Your task to perform on an android device: turn off javascript in the chrome app Image 0: 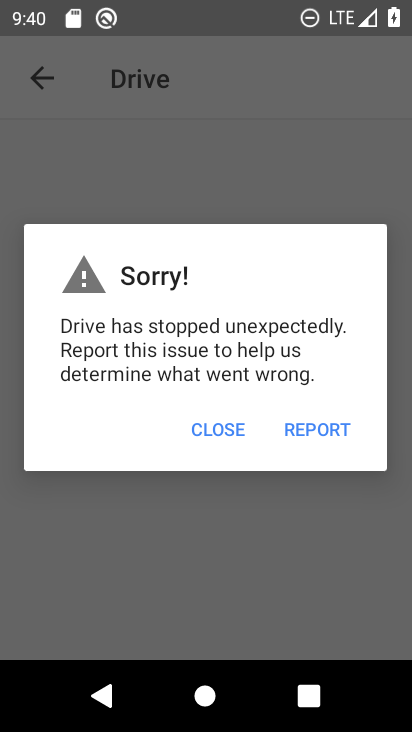
Step 0: click (259, 485)
Your task to perform on an android device: turn off javascript in the chrome app Image 1: 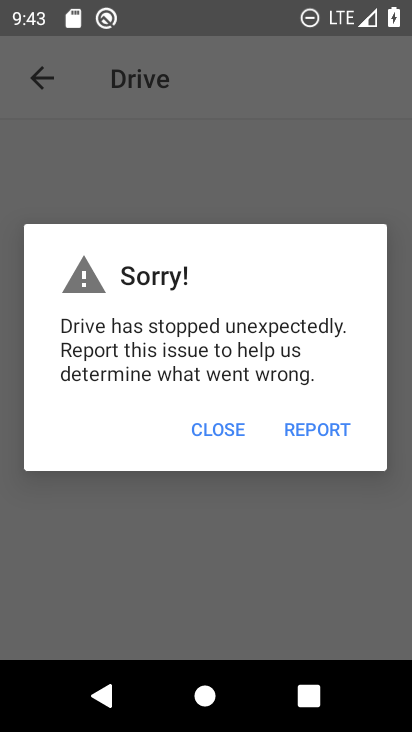
Step 1: press home button
Your task to perform on an android device: turn off javascript in the chrome app Image 2: 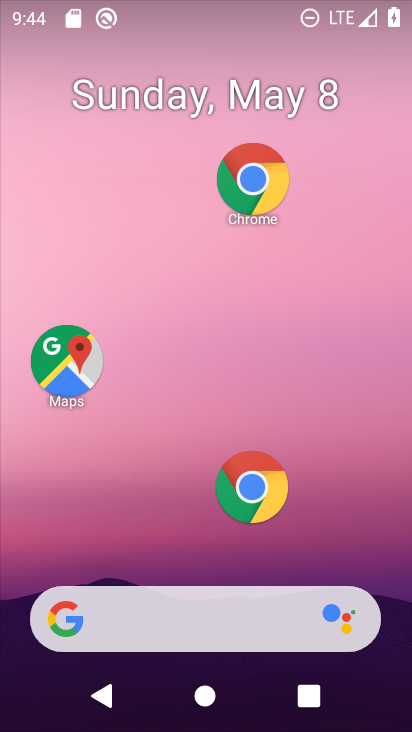
Step 2: drag from (177, 520) to (186, 13)
Your task to perform on an android device: turn off javascript in the chrome app Image 3: 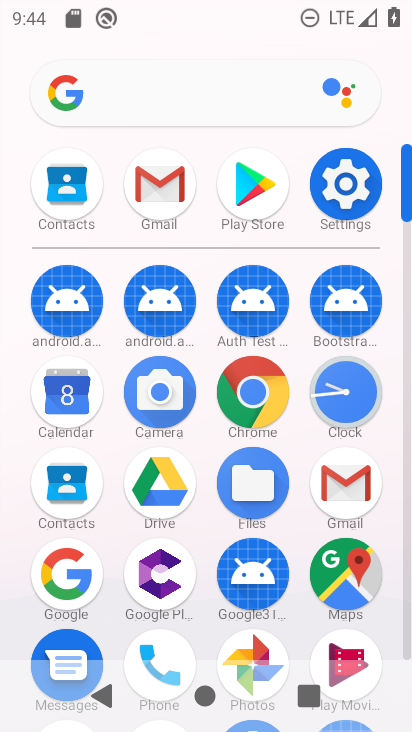
Step 3: click (248, 378)
Your task to perform on an android device: turn off javascript in the chrome app Image 4: 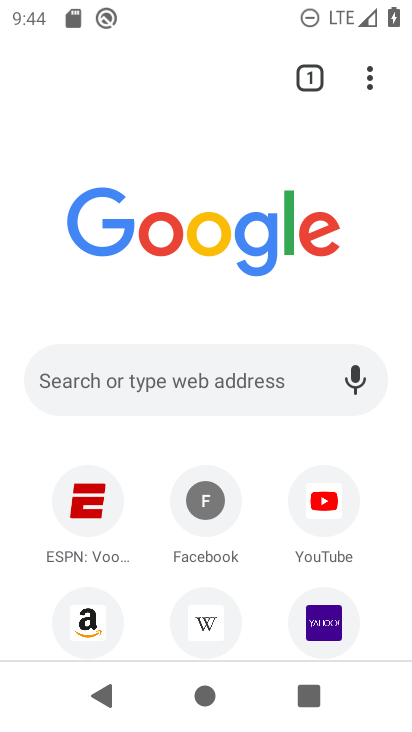
Step 4: click (361, 82)
Your task to perform on an android device: turn off javascript in the chrome app Image 5: 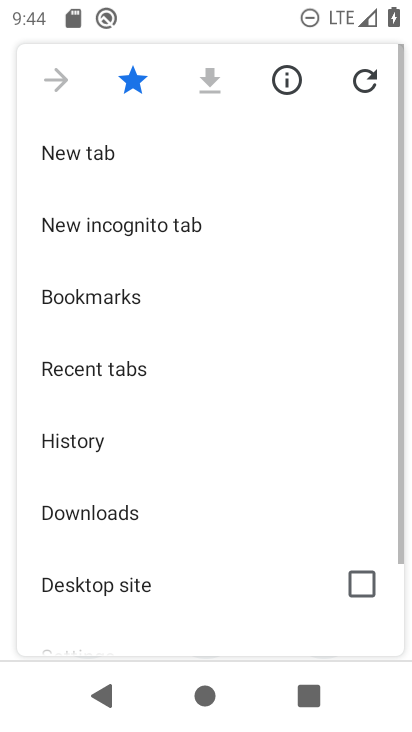
Step 5: drag from (288, 498) to (301, 190)
Your task to perform on an android device: turn off javascript in the chrome app Image 6: 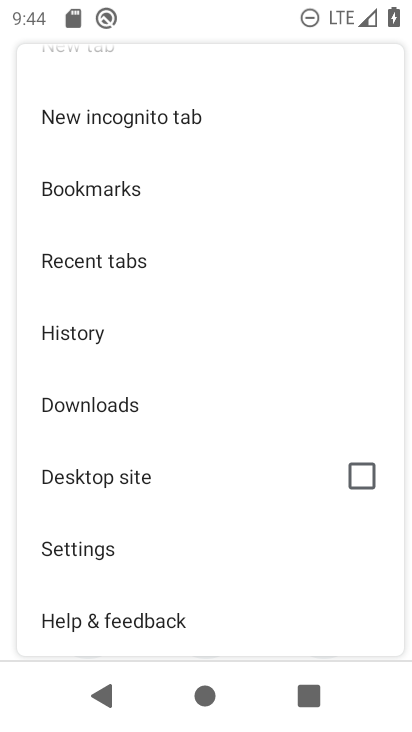
Step 6: click (103, 551)
Your task to perform on an android device: turn off javascript in the chrome app Image 7: 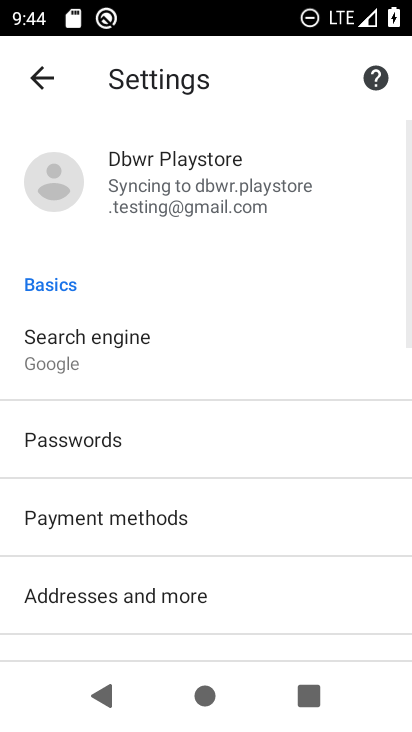
Step 7: drag from (256, 536) to (315, 103)
Your task to perform on an android device: turn off javascript in the chrome app Image 8: 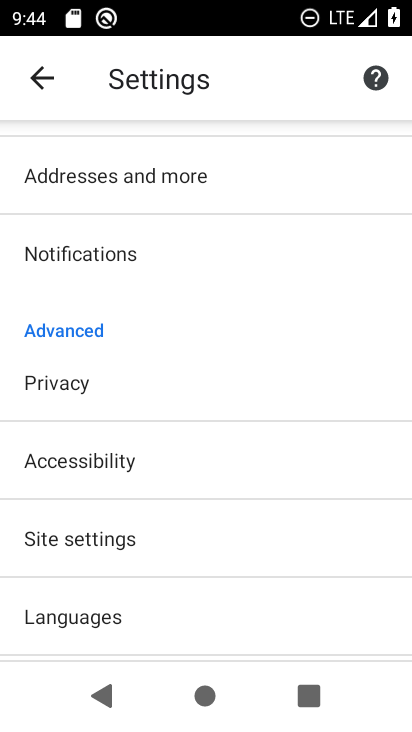
Step 8: click (166, 539)
Your task to perform on an android device: turn off javascript in the chrome app Image 9: 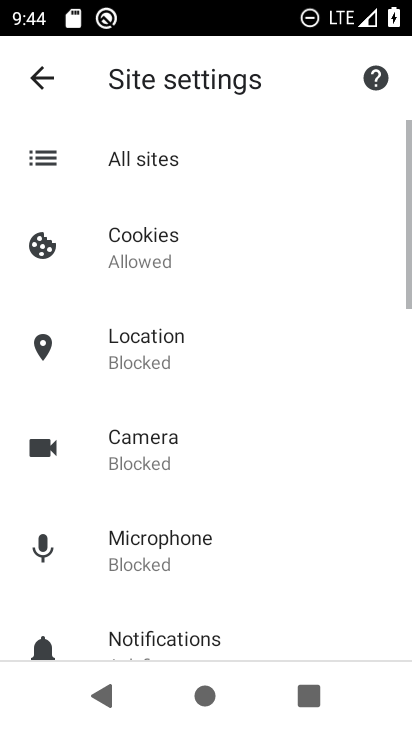
Step 9: drag from (248, 574) to (250, 147)
Your task to perform on an android device: turn off javascript in the chrome app Image 10: 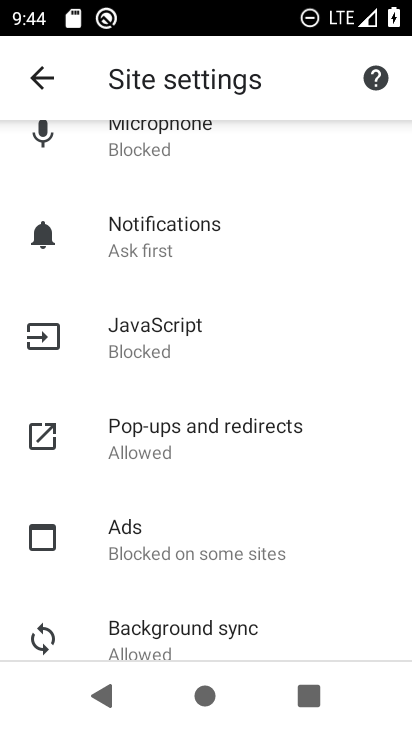
Step 10: click (223, 332)
Your task to perform on an android device: turn off javascript in the chrome app Image 11: 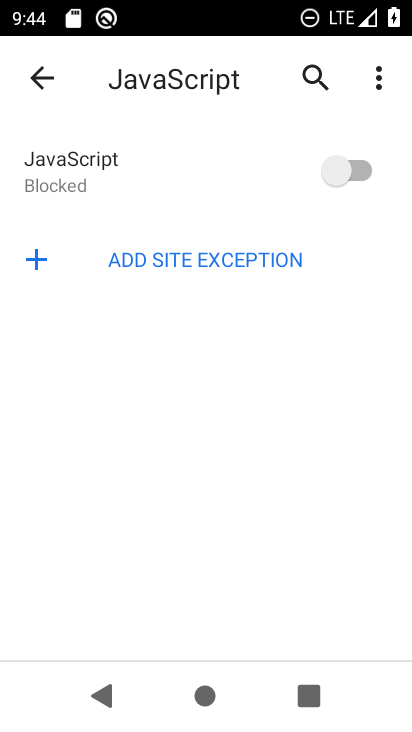
Step 11: task complete